Your task to perform on an android device: Go to location settings Image 0: 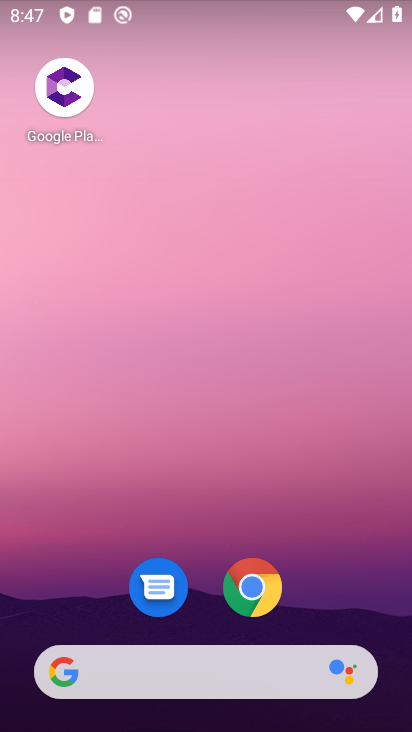
Step 0: drag from (384, 610) to (372, 22)
Your task to perform on an android device: Go to location settings Image 1: 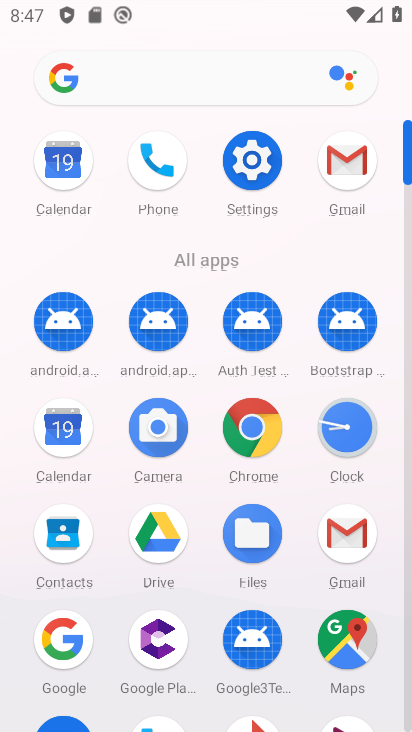
Step 1: click (251, 161)
Your task to perform on an android device: Go to location settings Image 2: 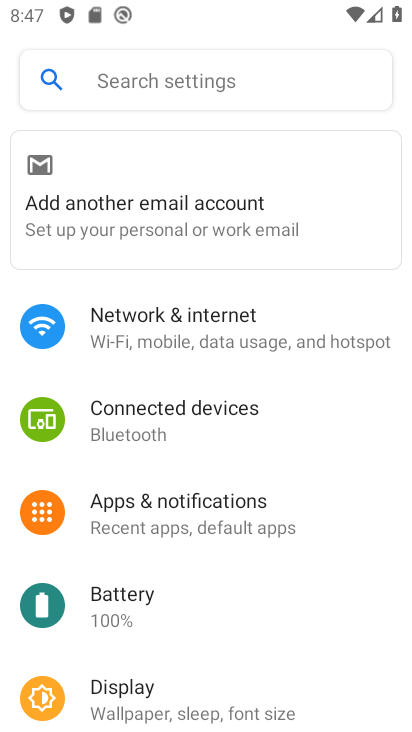
Step 2: drag from (348, 589) to (345, 204)
Your task to perform on an android device: Go to location settings Image 3: 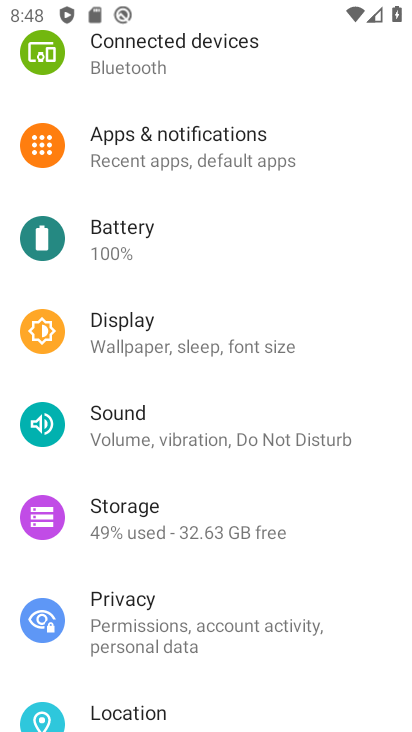
Step 3: drag from (325, 667) to (309, 496)
Your task to perform on an android device: Go to location settings Image 4: 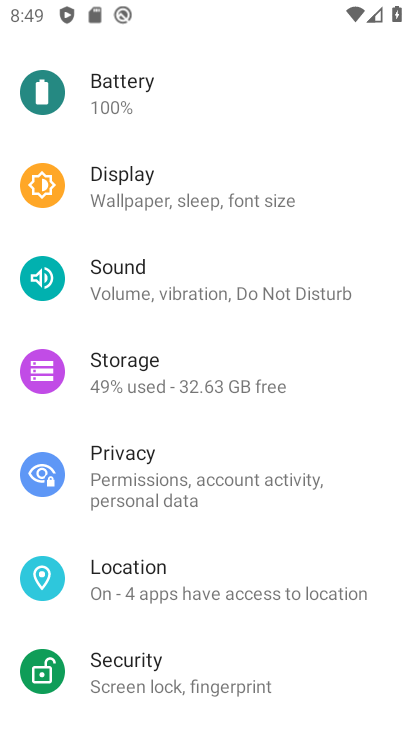
Step 4: click (125, 588)
Your task to perform on an android device: Go to location settings Image 5: 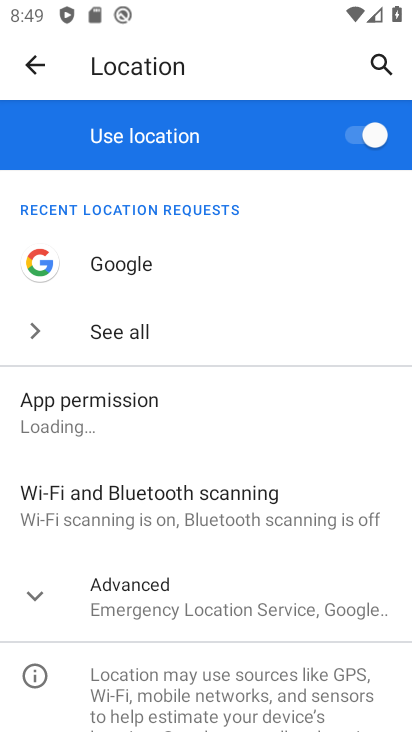
Step 5: task complete